Your task to perform on an android device: Open Wikipedia Image 0: 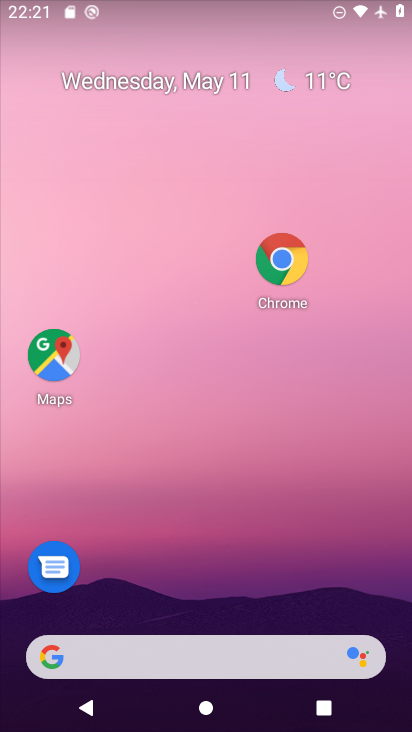
Step 0: drag from (199, 668) to (298, 140)
Your task to perform on an android device: Open Wikipedia Image 1: 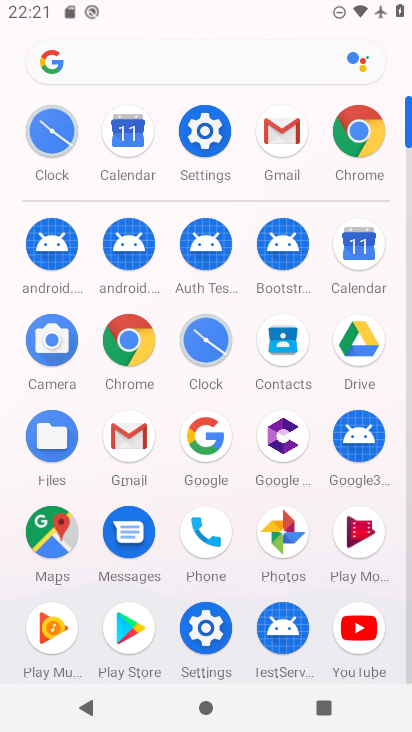
Step 1: click (350, 133)
Your task to perform on an android device: Open Wikipedia Image 2: 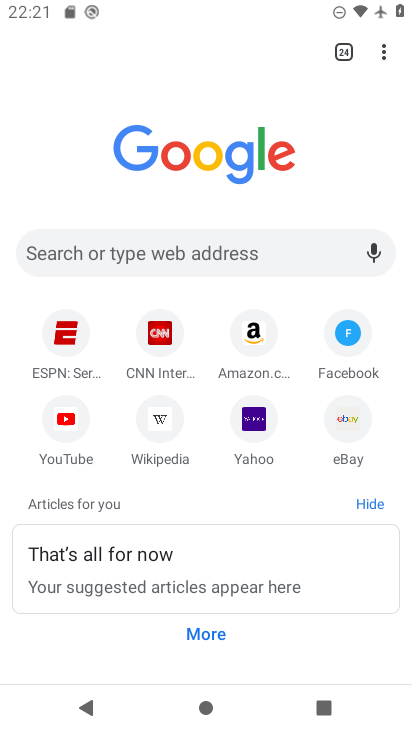
Step 2: click (166, 429)
Your task to perform on an android device: Open Wikipedia Image 3: 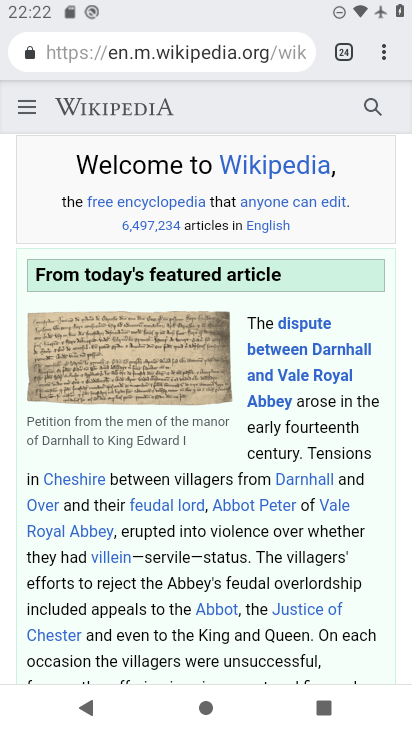
Step 3: task complete